Your task to perform on an android device: change keyboard looks Image 0: 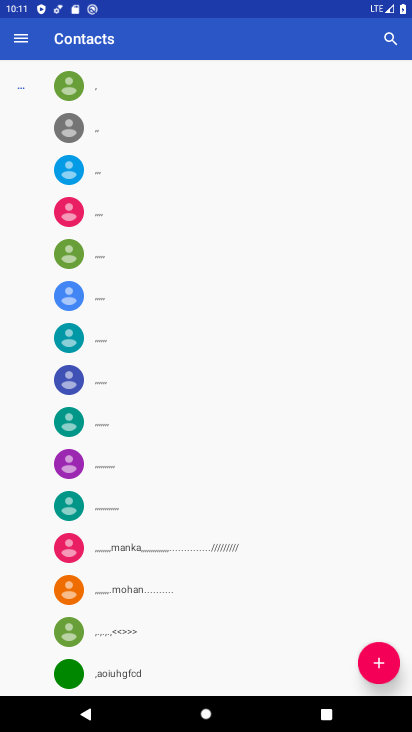
Step 0: press home button
Your task to perform on an android device: change keyboard looks Image 1: 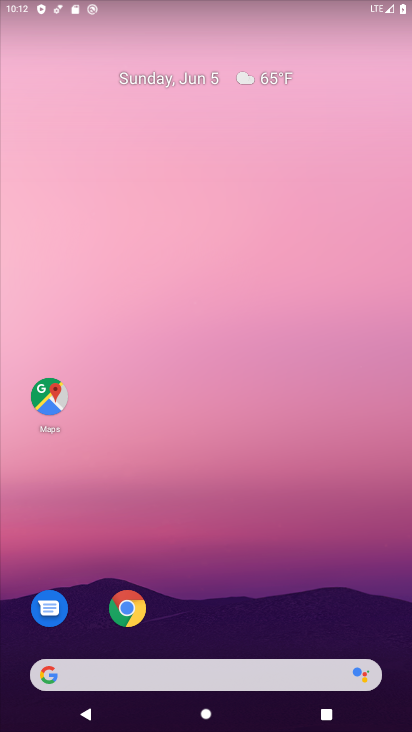
Step 1: drag from (211, 664) to (184, 139)
Your task to perform on an android device: change keyboard looks Image 2: 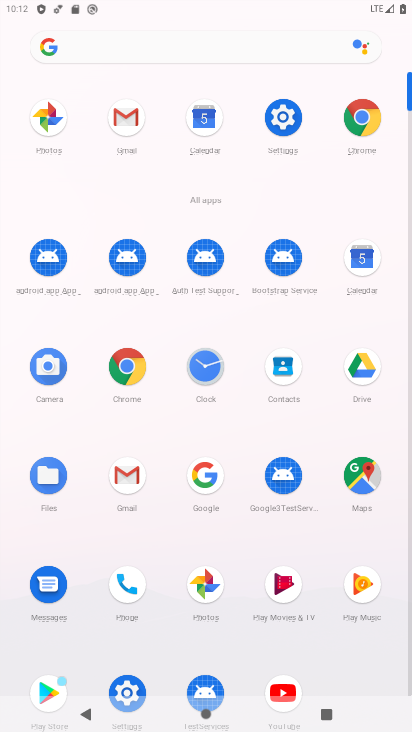
Step 2: click (290, 110)
Your task to perform on an android device: change keyboard looks Image 3: 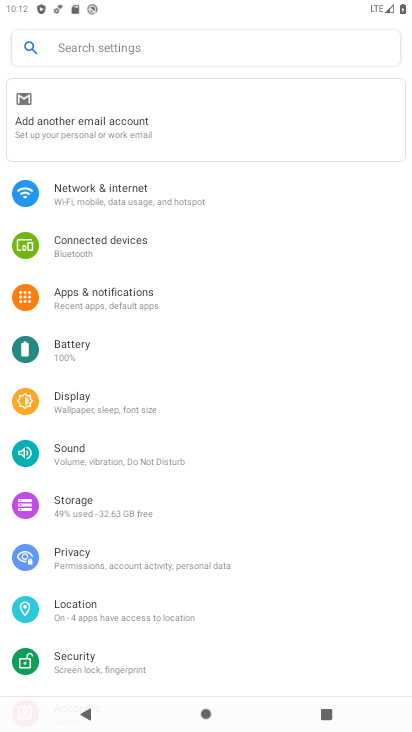
Step 3: drag from (98, 559) to (114, 60)
Your task to perform on an android device: change keyboard looks Image 4: 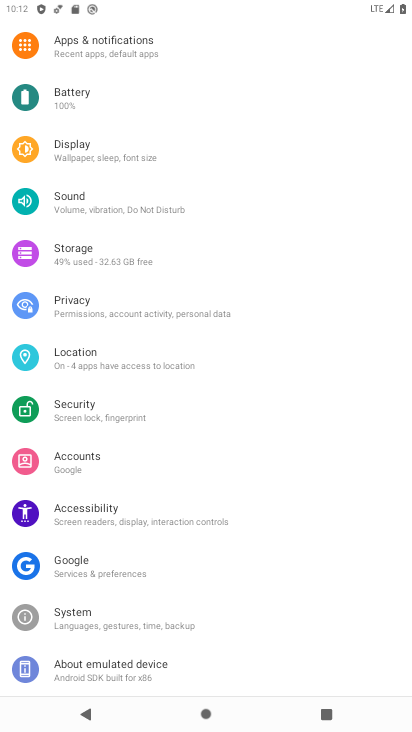
Step 4: click (143, 617)
Your task to perform on an android device: change keyboard looks Image 5: 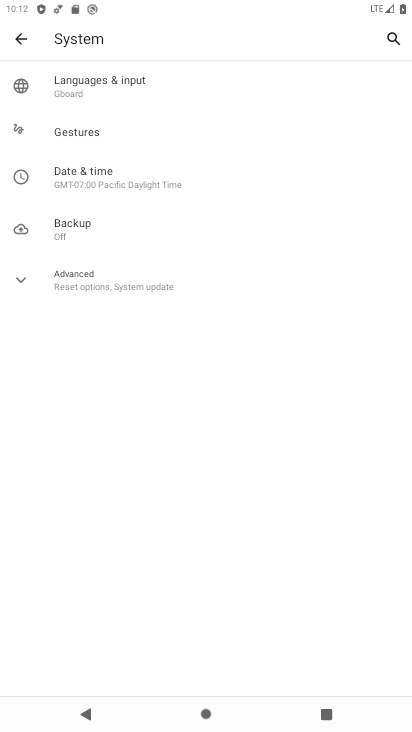
Step 5: click (110, 88)
Your task to perform on an android device: change keyboard looks Image 6: 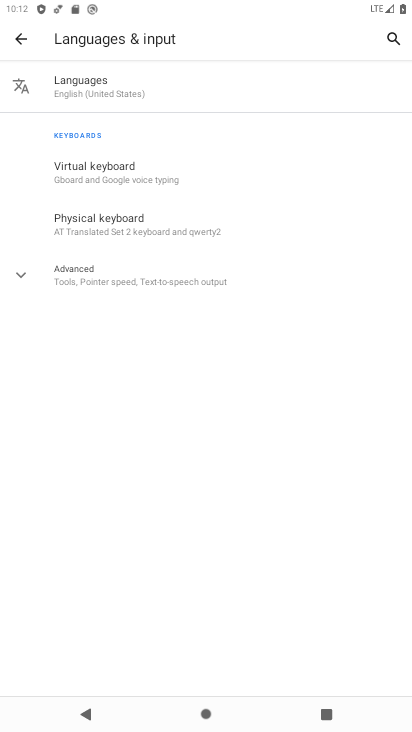
Step 6: click (120, 183)
Your task to perform on an android device: change keyboard looks Image 7: 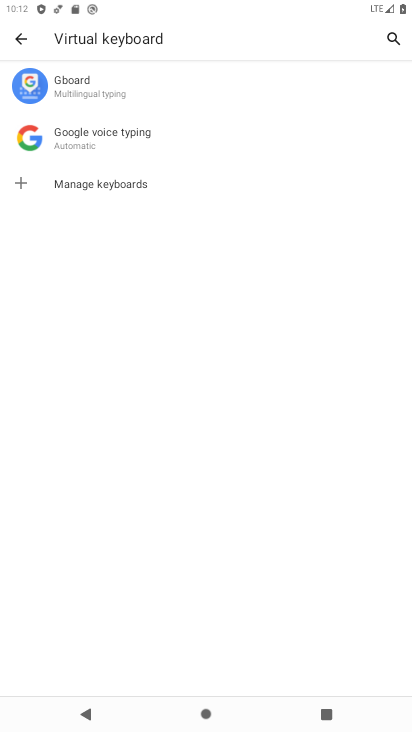
Step 7: click (80, 95)
Your task to perform on an android device: change keyboard looks Image 8: 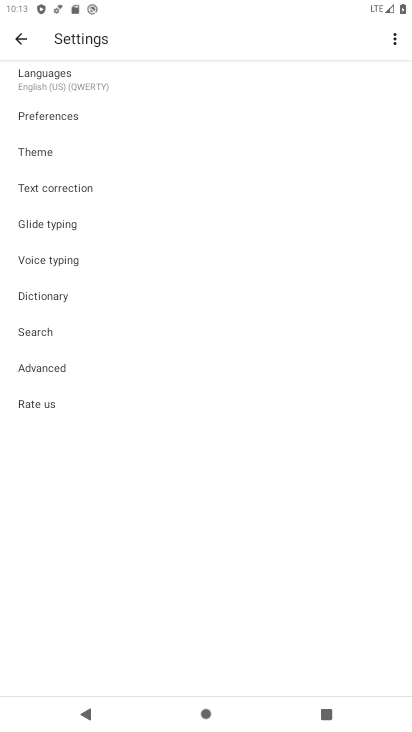
Step 8: click (31, 146)
Your task to perform on an android device: change keyboard looks Image 9: 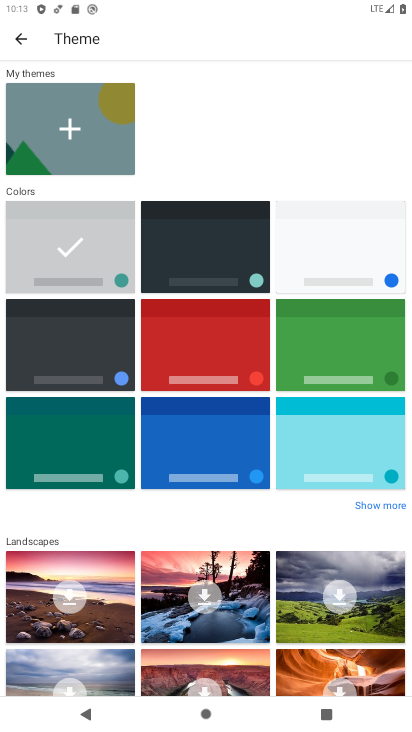
Step 9: click (107, 452)
Your task to perform on an android device: change keyboard looks Image 10: 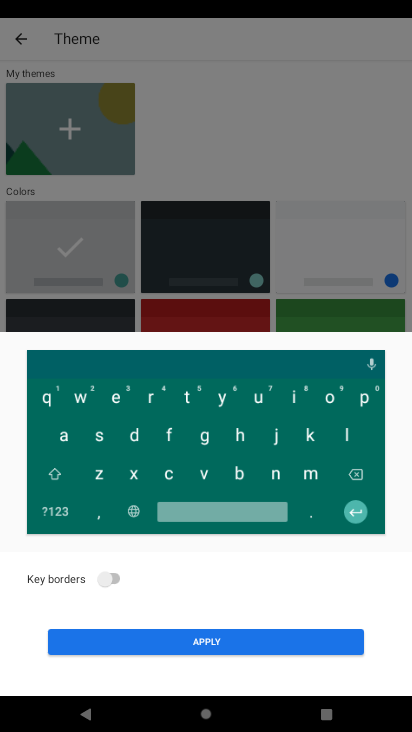
Step 10: click (192, 640)
Your task to perform on an android device: change keyboard looks Image 11: 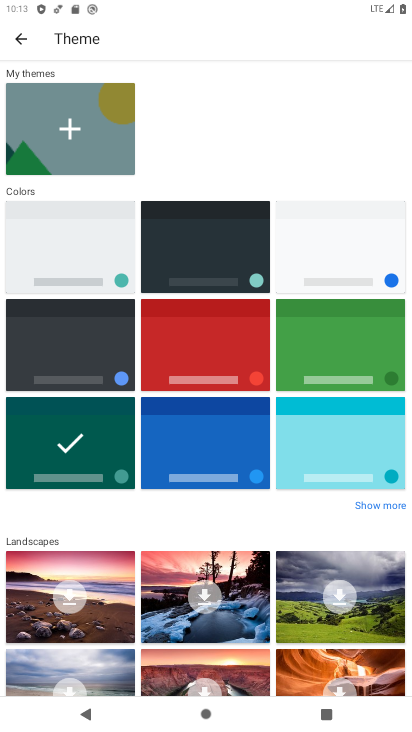
Step 11: task complete